Your task to perform on an android device: Search for sushi restaurants on Maps Image 0: 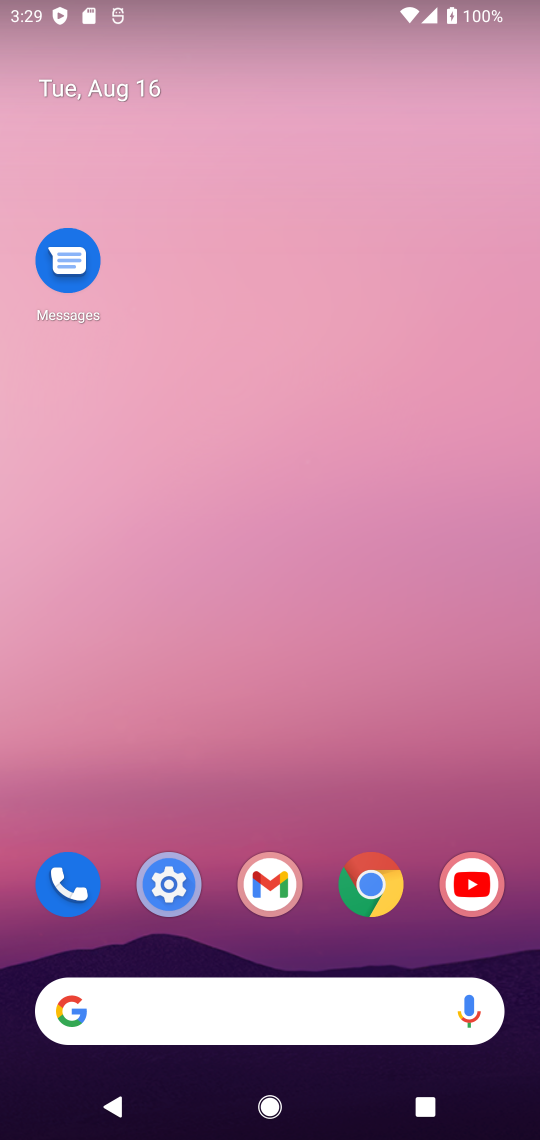
Step 0: drag from (5, 1070) to (458, 235)
Your task to perform on an android device: Search for sushi restaurants on Maps Image 1: 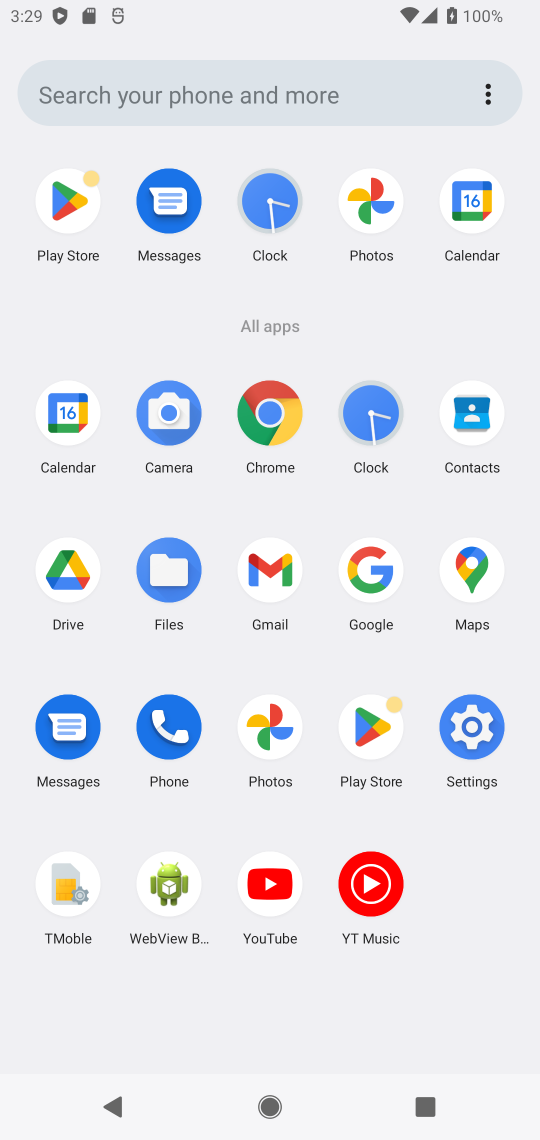
Step 1: click (454, 581)
Your task to perform on an android device: Search for sushi restaurants on Maps Image 2: 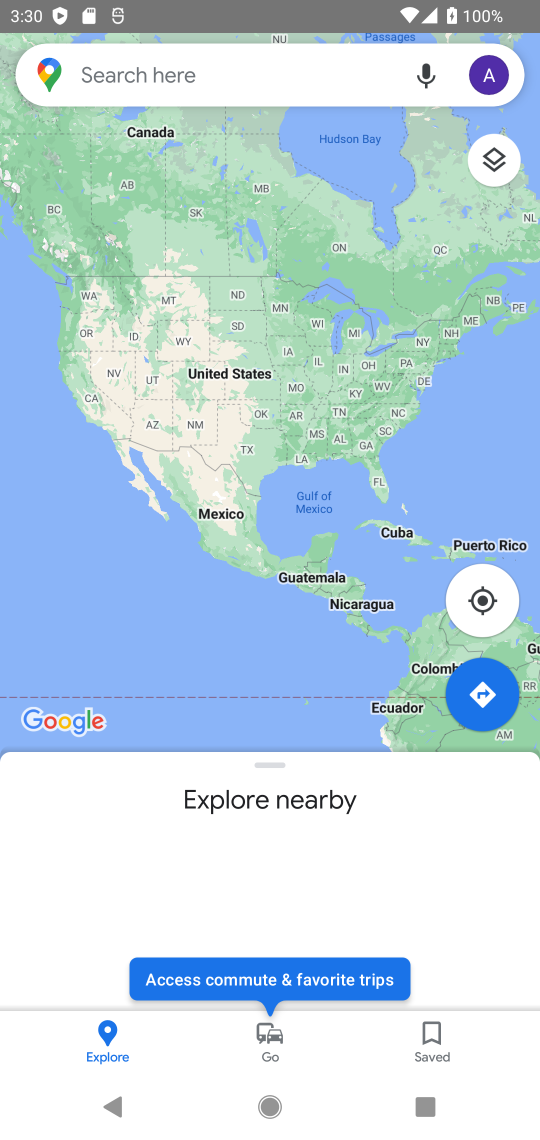
Step 2: click (113, 85)
Your task to perform on an android device: Search for sushi restaurants on Maps Image 3: 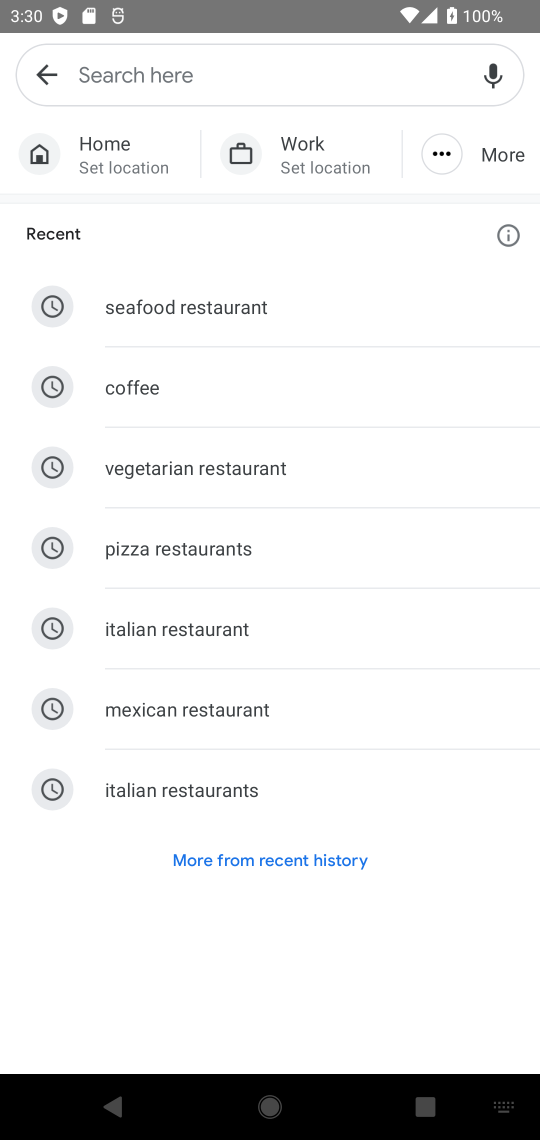
Step 3: type "sushi restaurants"
Your task to perform on an android device: Search for sushi restaurants on Maps Image 4: 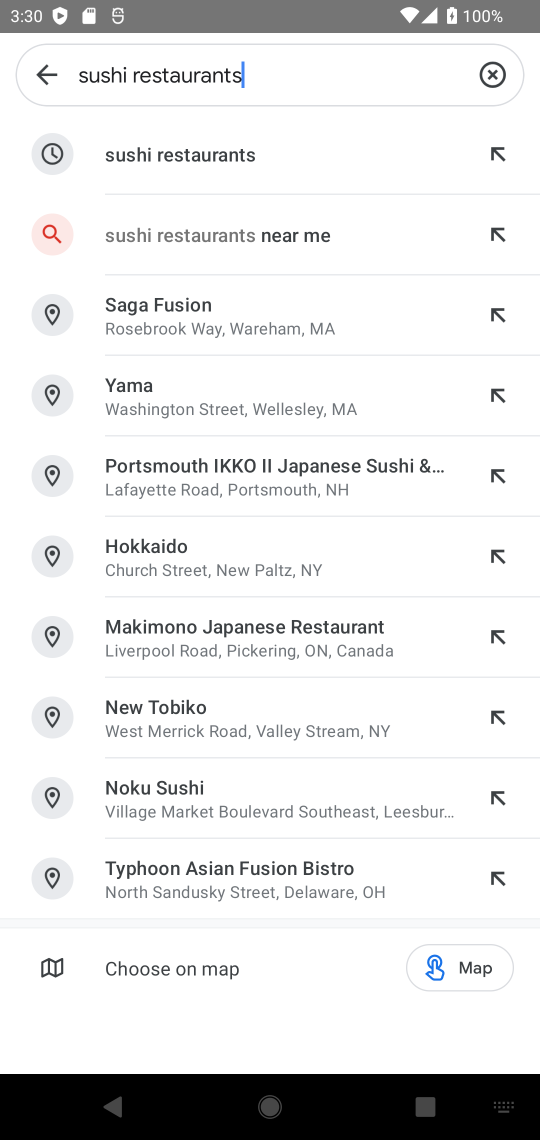
Step 4: click (208, 152)
Your task to perform on an android device: Search for sushi restaurants on Maps Image 5: 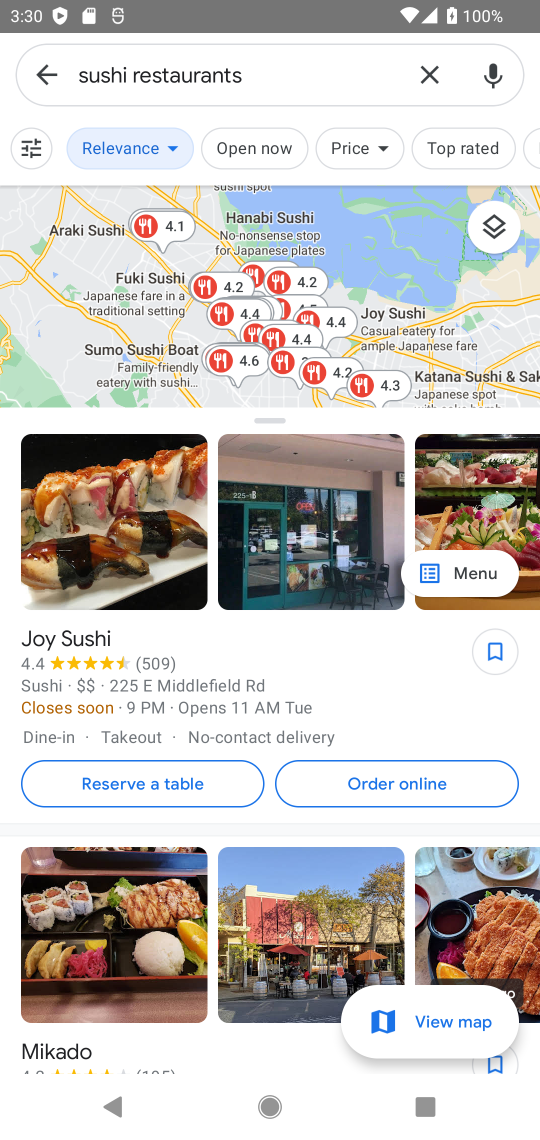
Step 5: task complete